Your task to perform on an android device: add a label to a message in the gmail app Image 0: 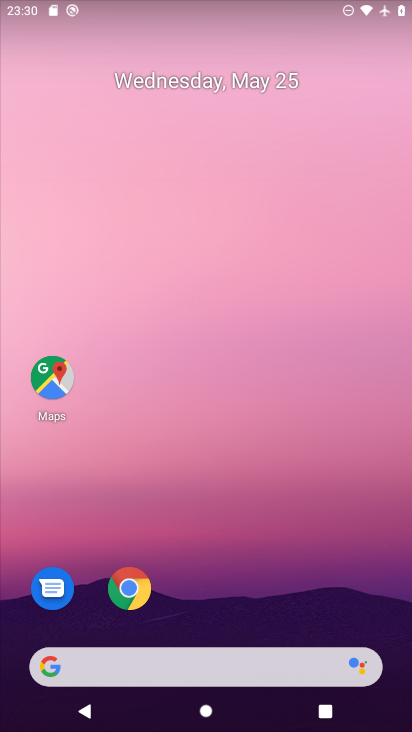
Step 0: drag from (332, 491) to (346, 84)
Your task to perform on an android device: add a label to a message in the gmail app Image 1: 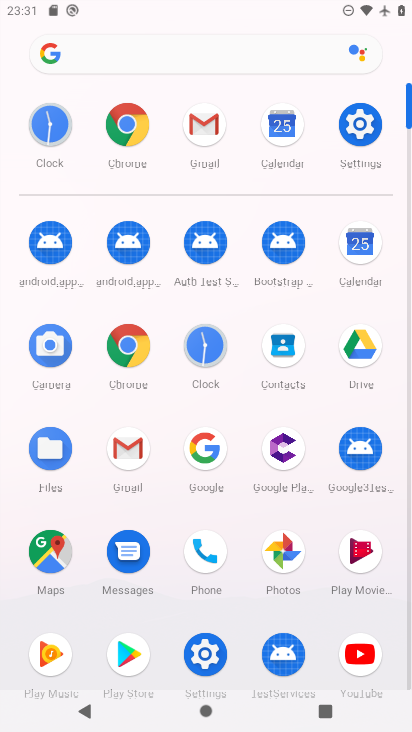
Step 1: click (210, 137)
Your task to perform on an android device: add a label to a message in the gmail app Image 2: 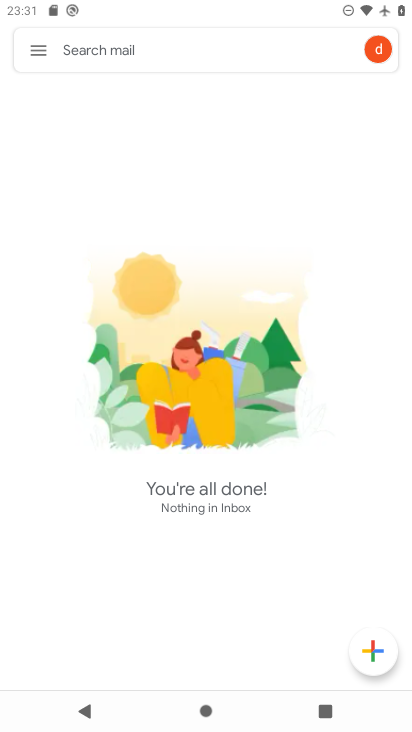
Step 2: click (43, 48)
Your task to perform on an android device: add a label to a message in the gmail app Image 3: 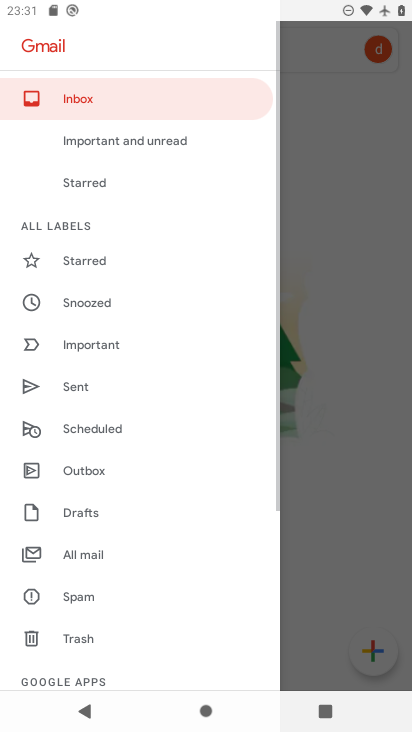
Step 3: click (96, 550)
Your task to perform on an android device: add a label to a message in the gmail app Image 4: 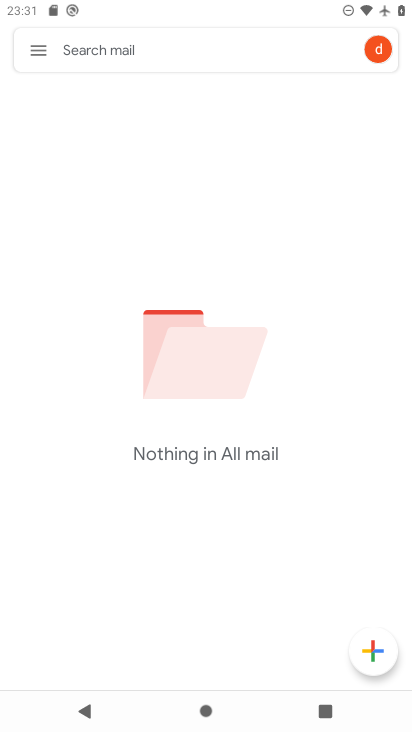
Step 4: task complete